Your task to perform on an android device: Open CNN.com Image 0: 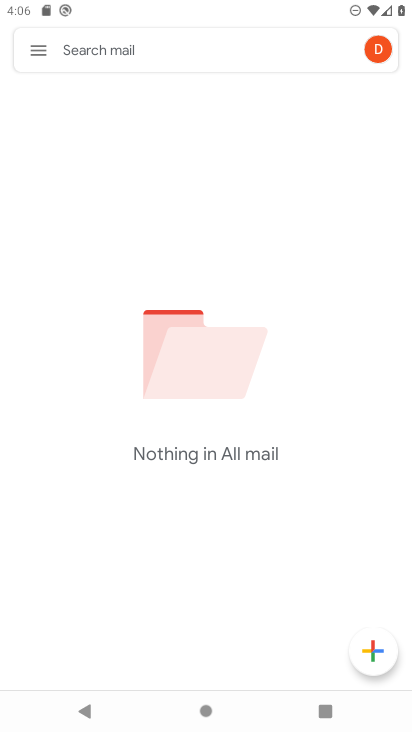
Step 0: press home button
Your task to perform on an android device: Open CNN.com Image 1: 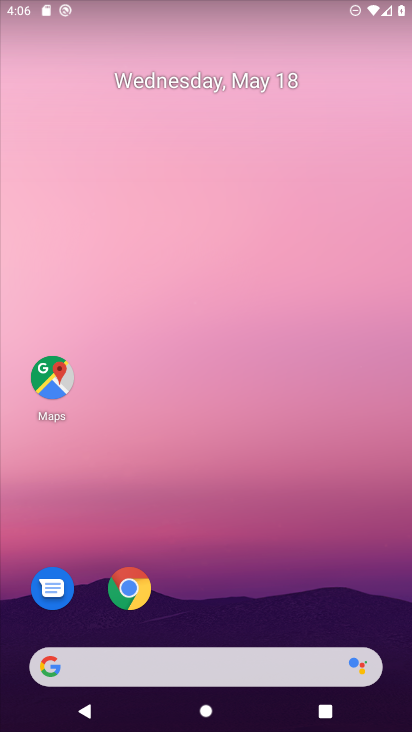
Step 1: click (129, 597)
Your task to perform on an android device: Open CNN.com Image 2: 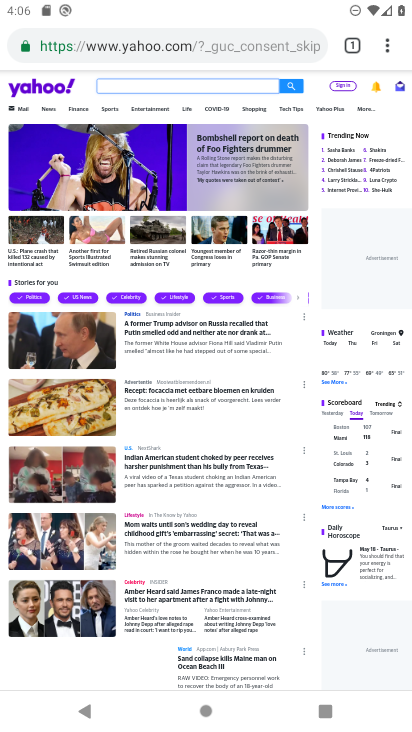
Step 2: click (244, 55)
Your task to perform on an android device: Open CNN.com Image 3: 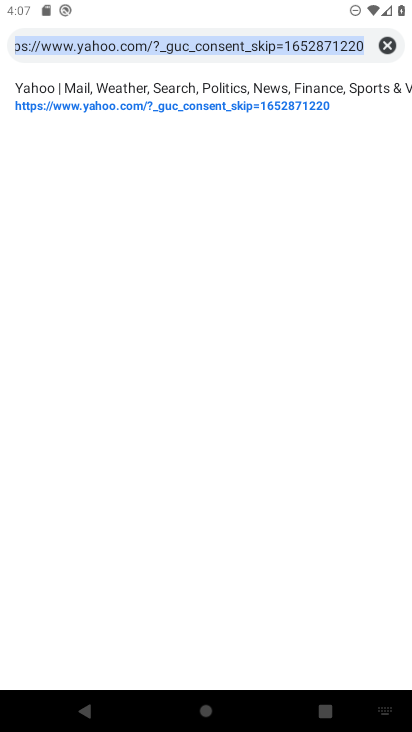
Step 3: type "cnn.com"
Your task to perform on an android device: Open CNN.com Image 4: 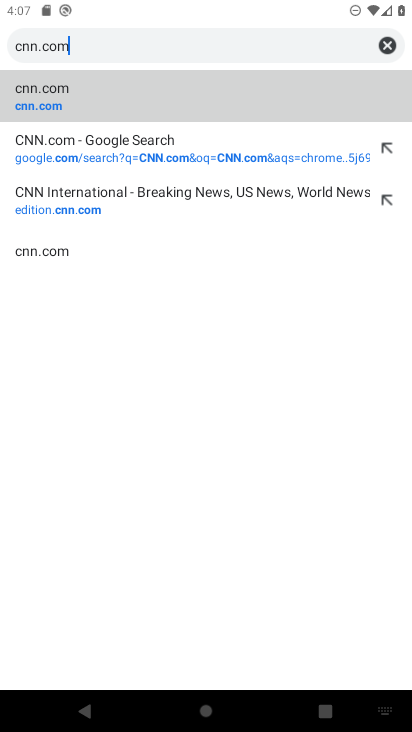
Step 4: click (154, 136)
Your task to perform on an android device: Open CNN.com Image 5: 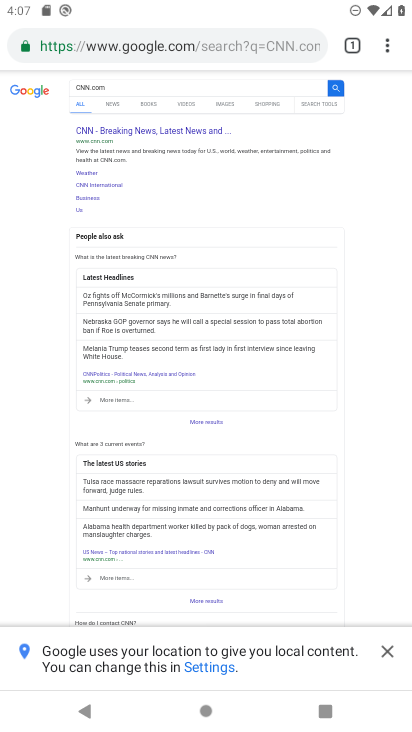
Step 5: click (146, 132)
Your task to perform on an android device: Open CNN.com Image 6: 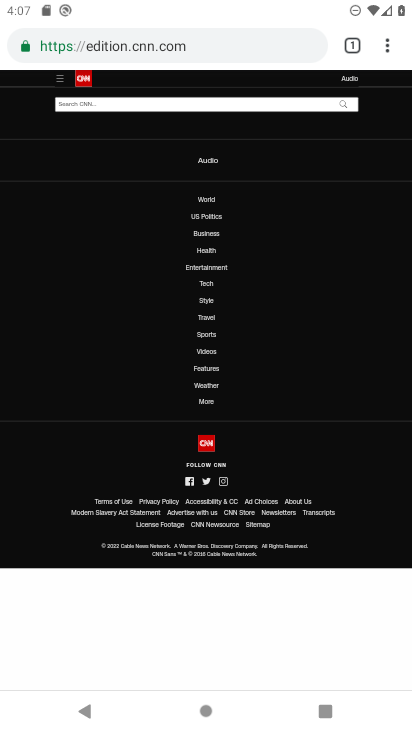
Step 6: task complete